Your task to perform on an android device: See recent photos Image 0: 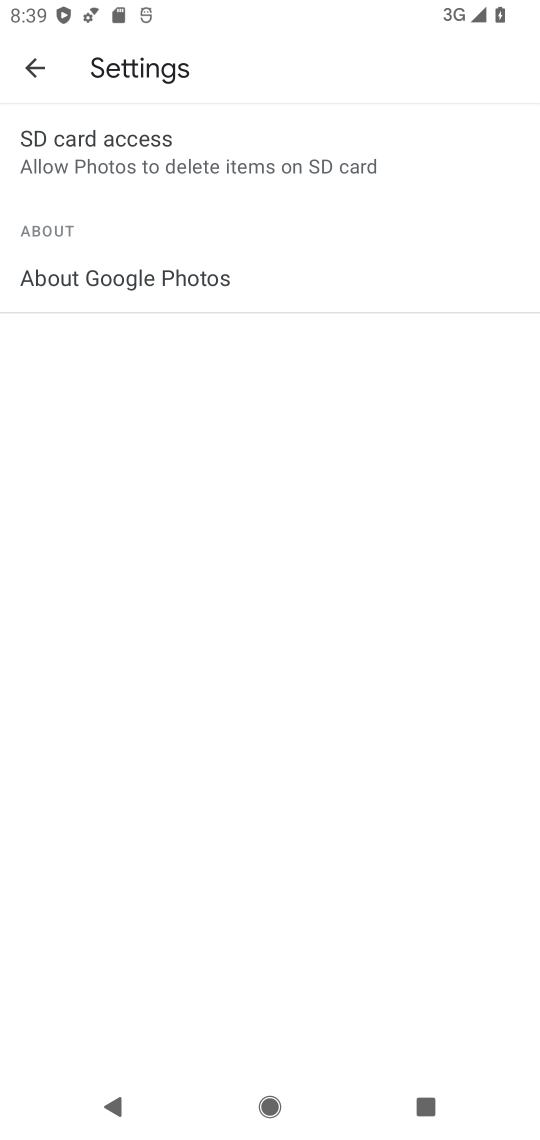
Step 0: press home button
Your task to perform on an android device: See recent photos Image 1: 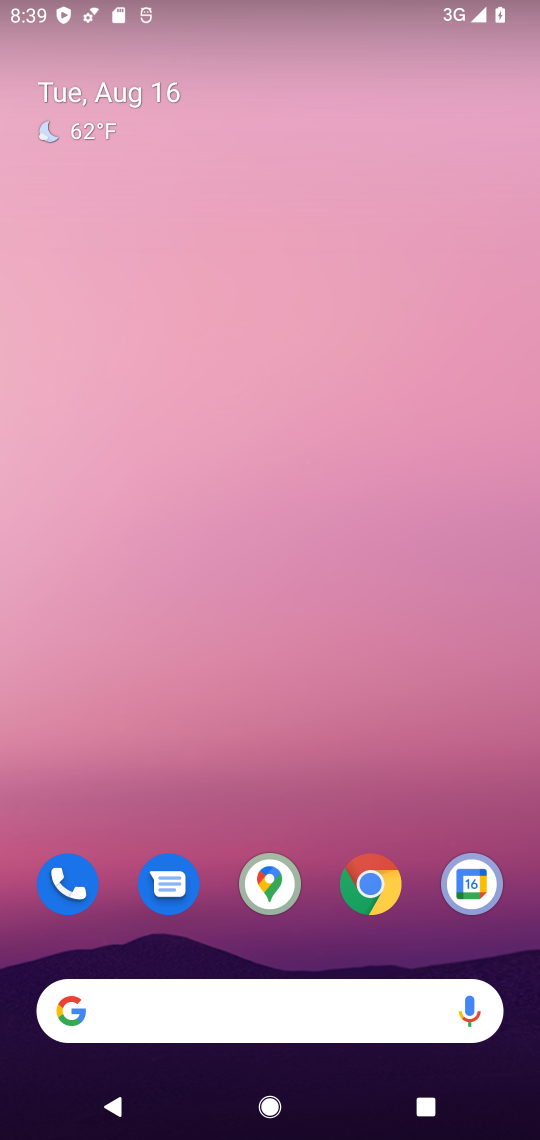
Step 1: drag from (420, 954) to (388, 125)
Your task to perform on an android device: See recent photos Image 2: 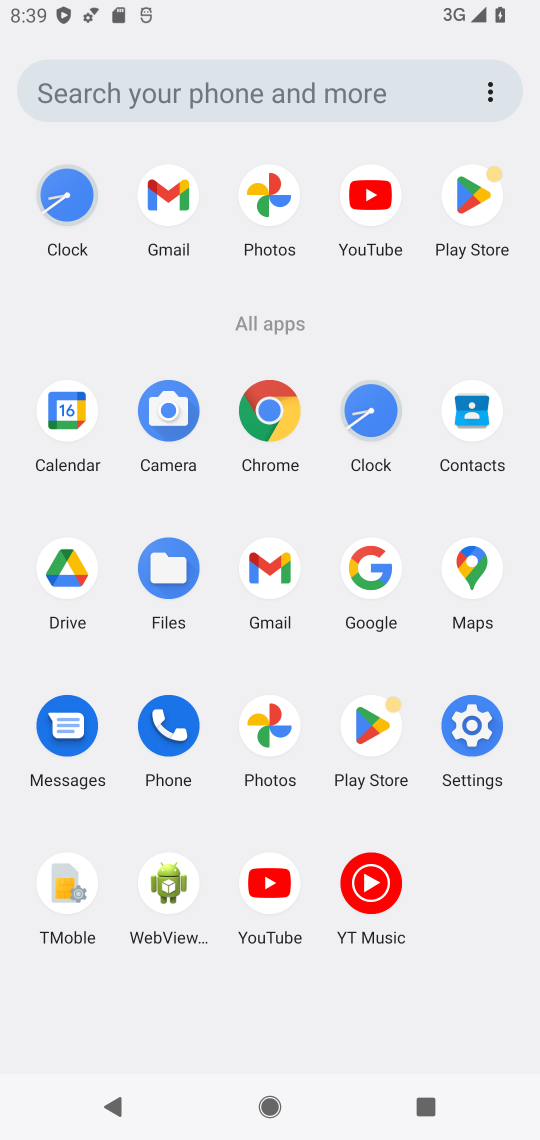
Step 2: click (269, 722)
Your task to perform on an android device: See recent photos Image 3: 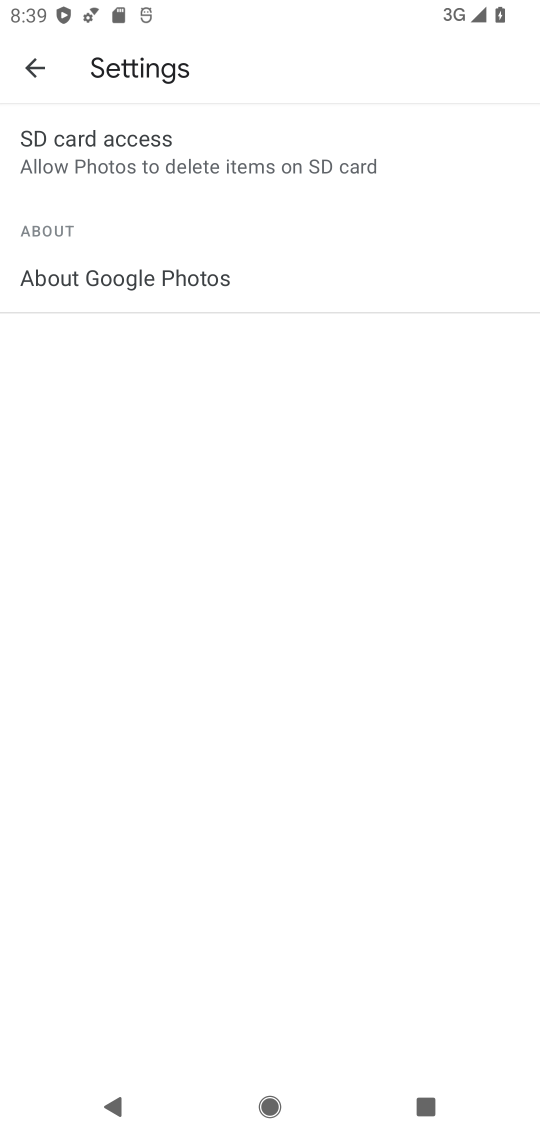
Step 3: task complete